Your task to perform on an android device: Open Google Image 0: 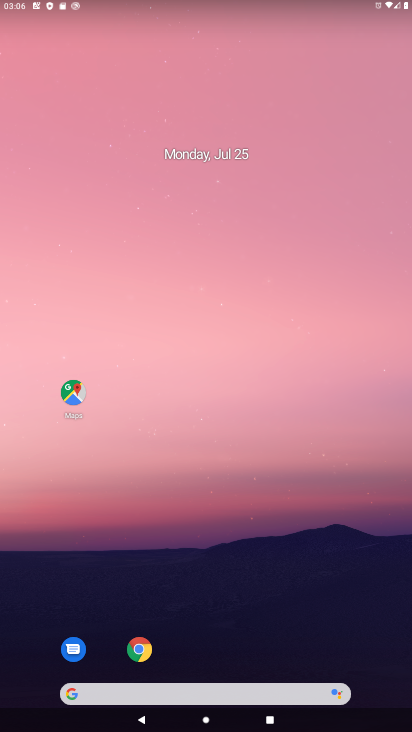
Step 0: click (140, 652)
Your task to perform on an android device: Open Google Image 1: 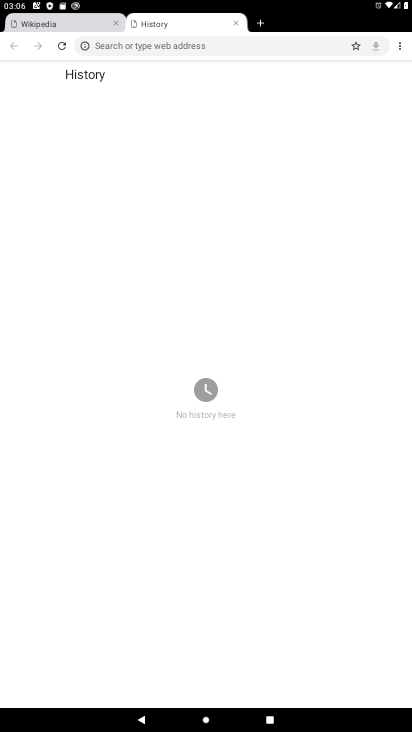
Step 1: task complete